Your task to perform on an android device: turn off translation in the chrome app Image 0: 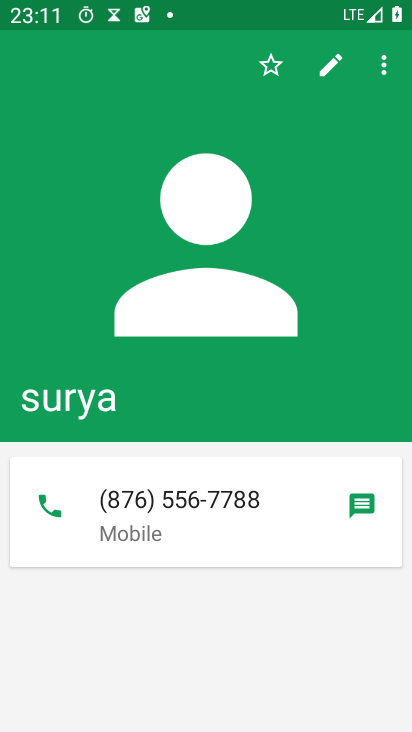
Step 0: press home button
Your task to perform on an android device: turn off translation in the chrome app Image 1: 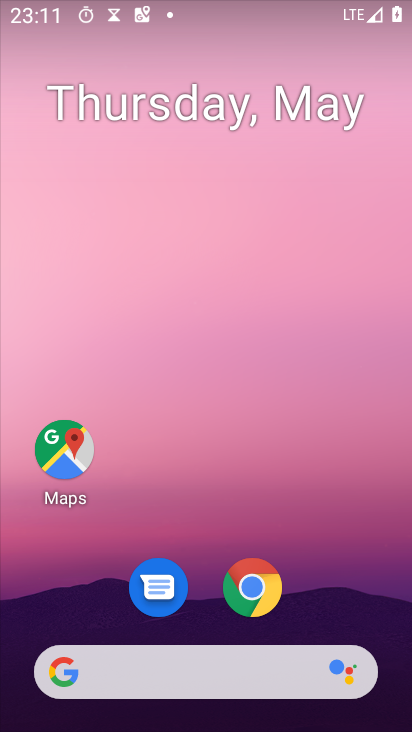
Step 1: click (248, 598)
Your task to perform on an android device: turn off translation in the chrome app Image 2: 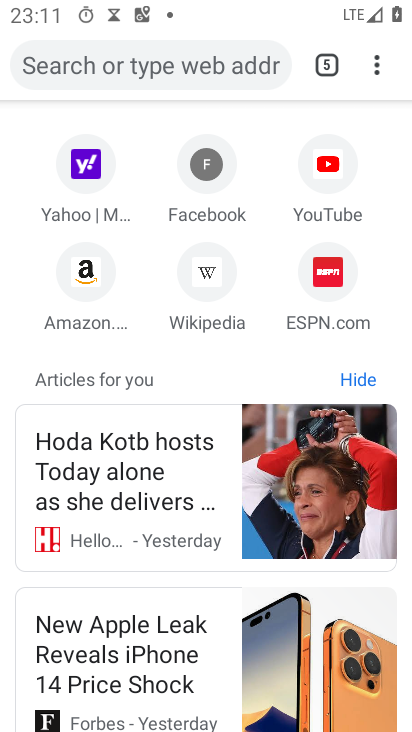
Step 2: click (378, 66)
Your task to perform on an android device: turn off translation in the chrome app Image 3: 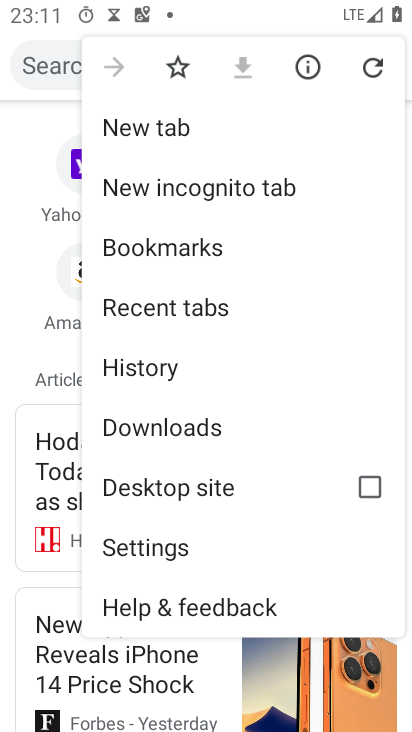
Step 3: click (151, 547)
Your task to perform on an android device: turn off translation in the chrome app Image 4: 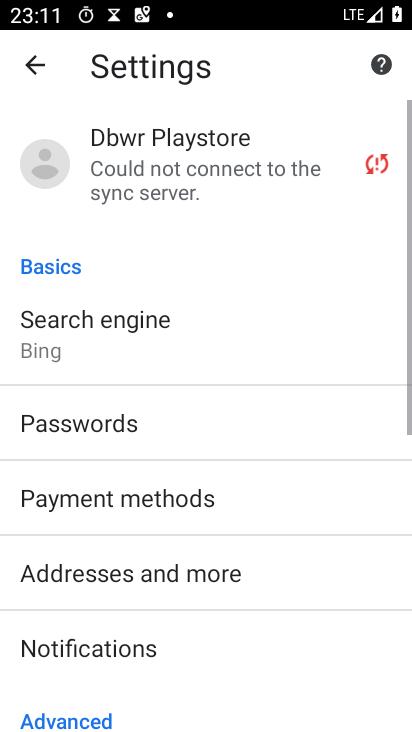
Step 4: drag from (200, 600) to (201, 103)
Your task to perform on an android device: turn off translation in the chrome app Image 5: 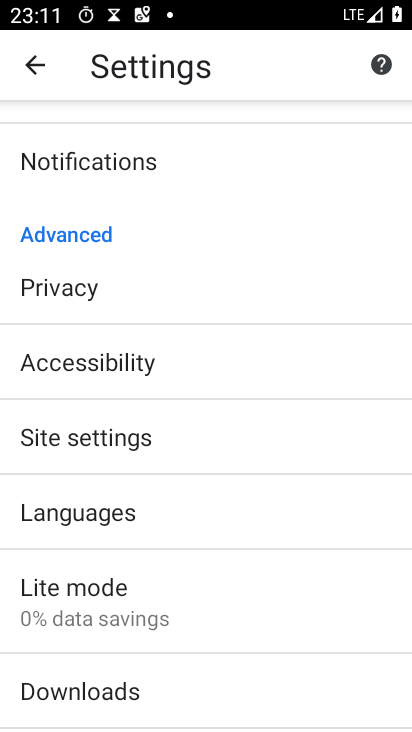
Step 5: click (92, 517)
Your task to perform on an android device: turn off translation in the chrome app Image 6: 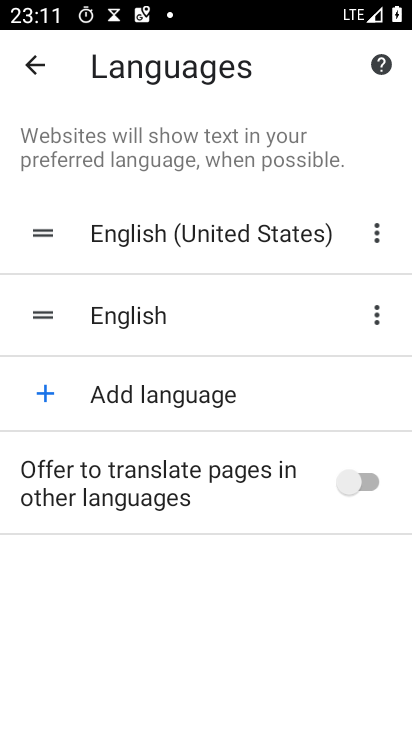
Step 6: task complete